Your task to perform on an android device: What's on my calendar today? Image 0: 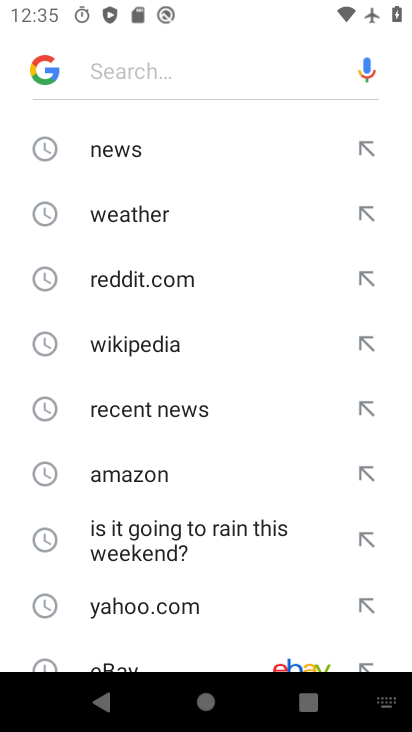
Step 0: press home button
Your task to perform on an android device: What's on my calendar today? Image 1: 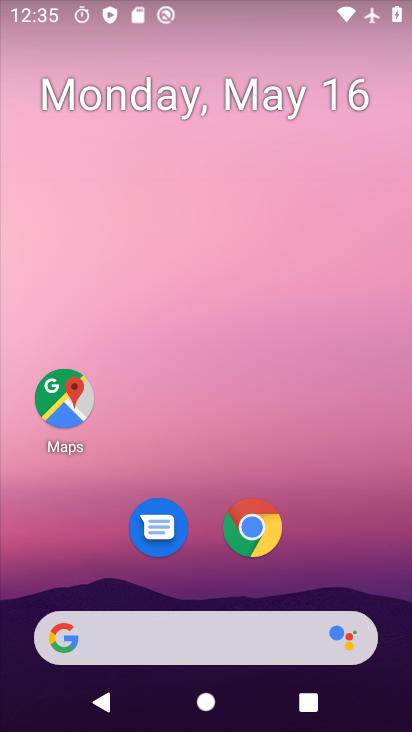
Step 1: drag from (170, 642) to (297, 206)
Your task to perform on an android device: What's on my calendar today? Image 2: 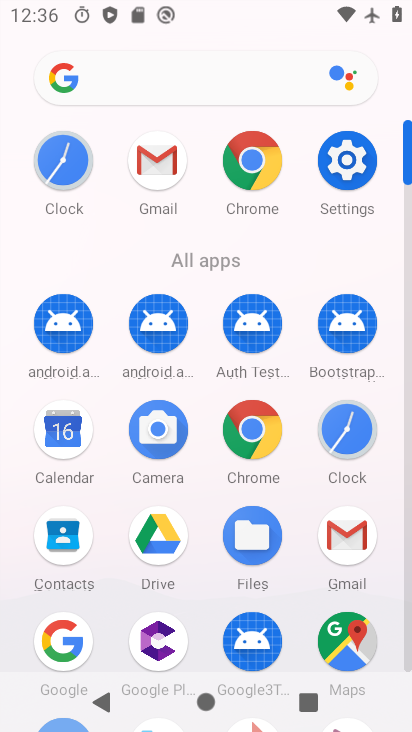
Step 2: click (63, 427)
Your task to perform on an android device: What's on my calendar today? Image 3: 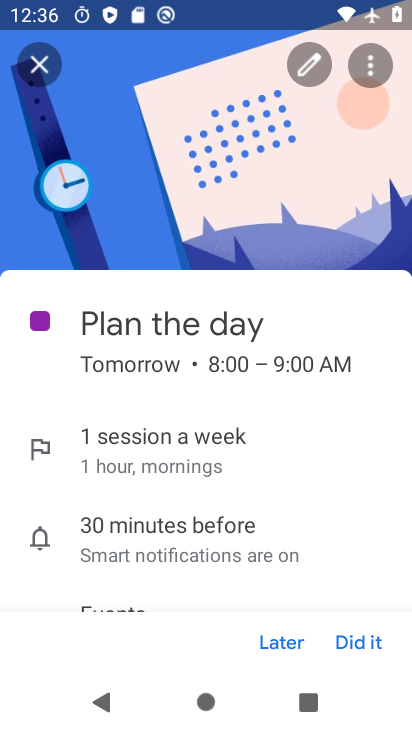
Step 3: click (47, 65)
Your task to perform on an android device: What's on my calendar today? Image 4: 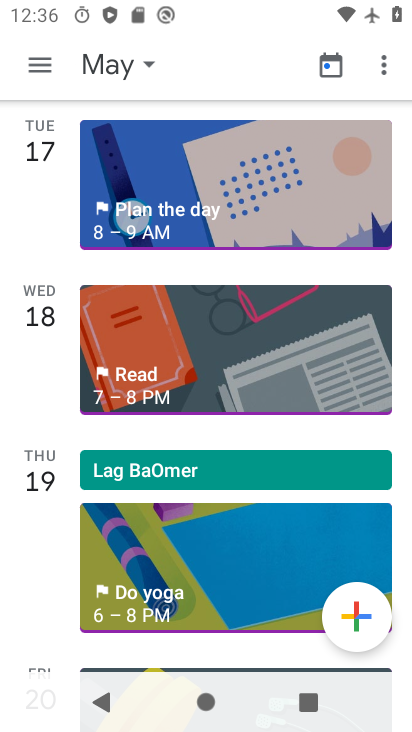
Step 4: click (117, 58)
Your task to perform on an android device: What's on my calendar today? Image 5: 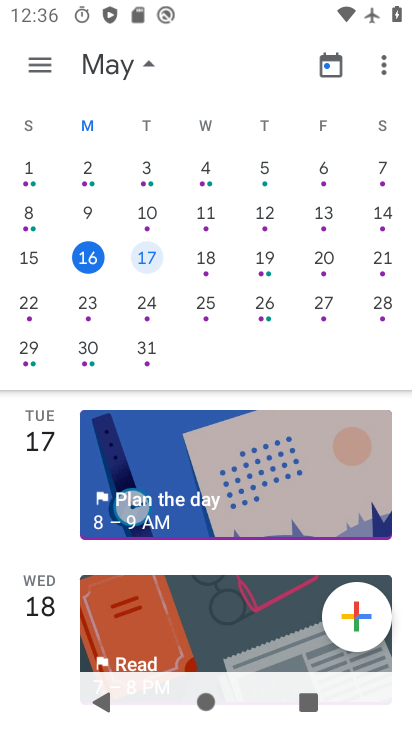
Step 5: click (91, 257)
Your task to perform on an android device: What's on my calendar today? Image 6: 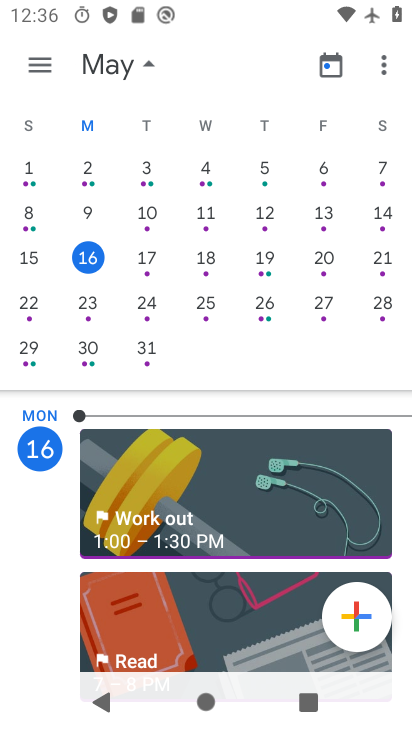
Step 6: click (45, 61)
Your task to perform on an android device: What's on my calendar today? Image 7: 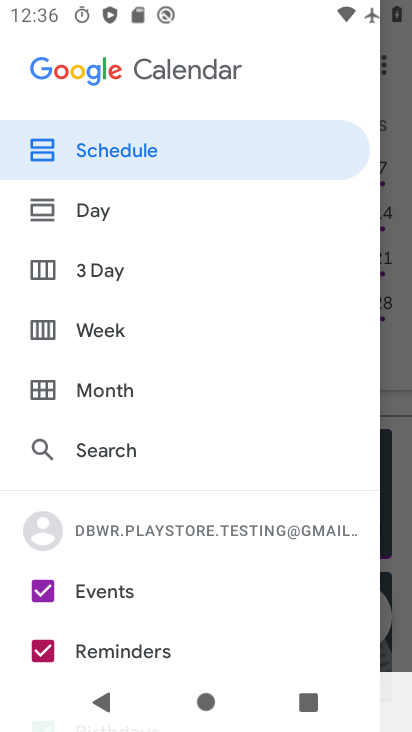
Step 7: click (129, 160)
Your task to perform on an android device: What's on my calendar today? Image 8: 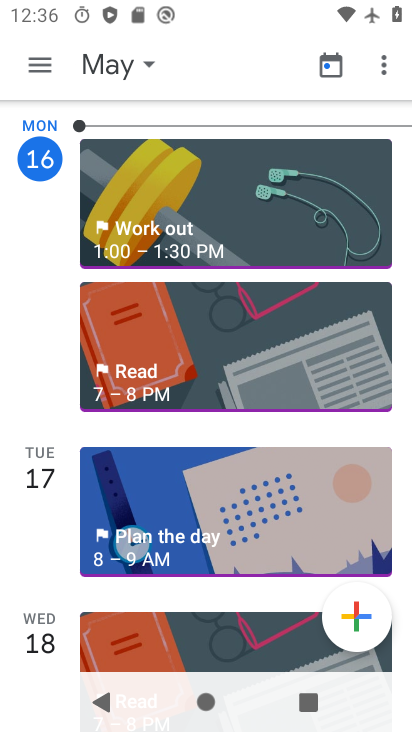
Step 8: click (192, 351)
Your task to perform on an android device: What's on my calendar today? Image 9: 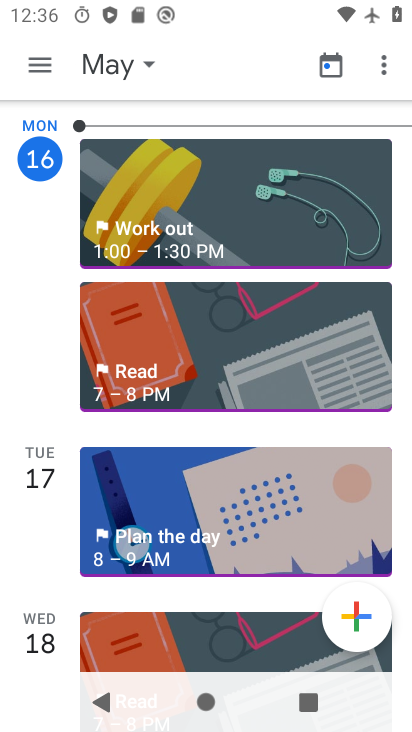
Step 9: click (137, 375)
Your task to perform on an android device: What's on my calendar today? Image 10: 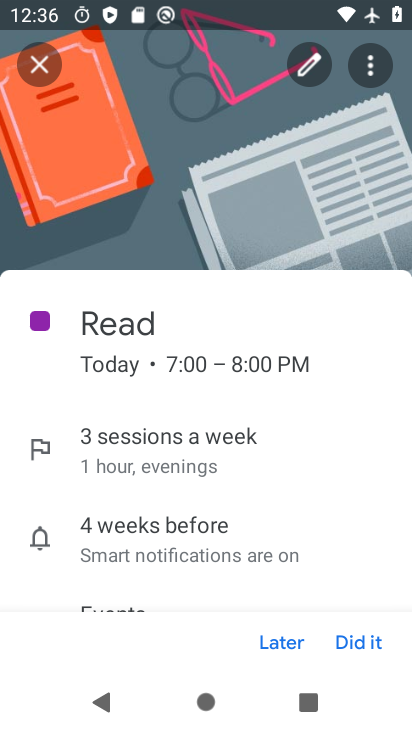
Step 10: task complete